Your task to perform on an android device: Clear all items from cart on amazon.com. Image 0: 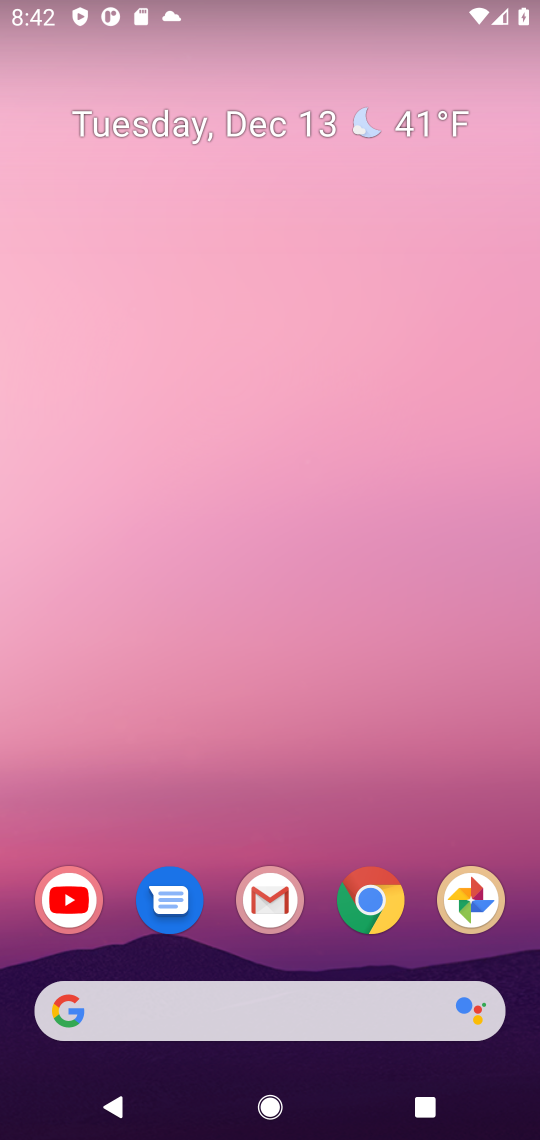
Step 0: click (376, 908)
Your task to perform on an android device: Clear all items from cart on amazon.com. Image 1: 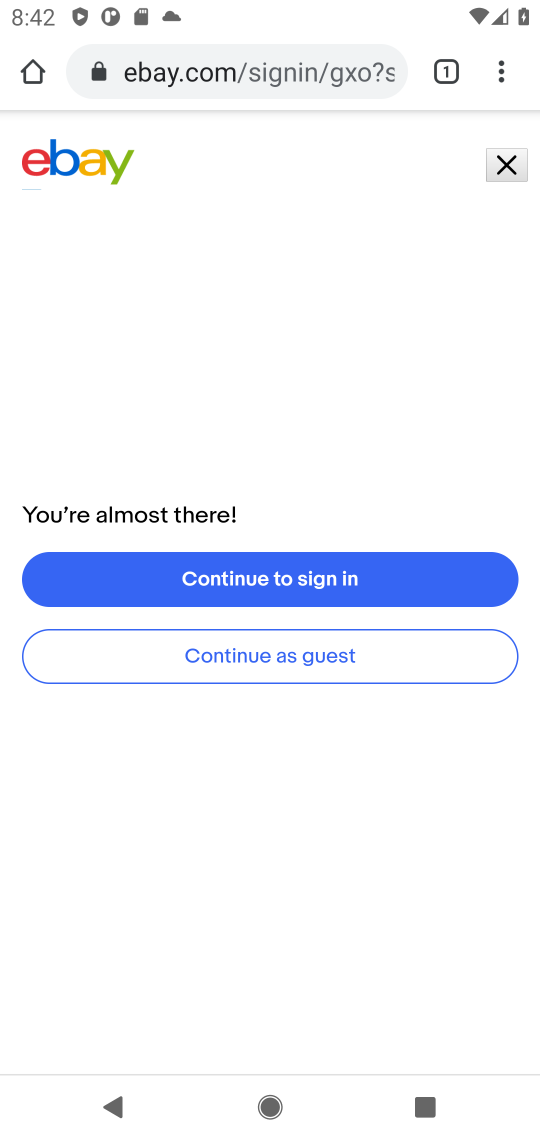
Step 1: click (237, 70)
Your task to perform on an android device: Clear all items from cart on amazon.com. Image 2: 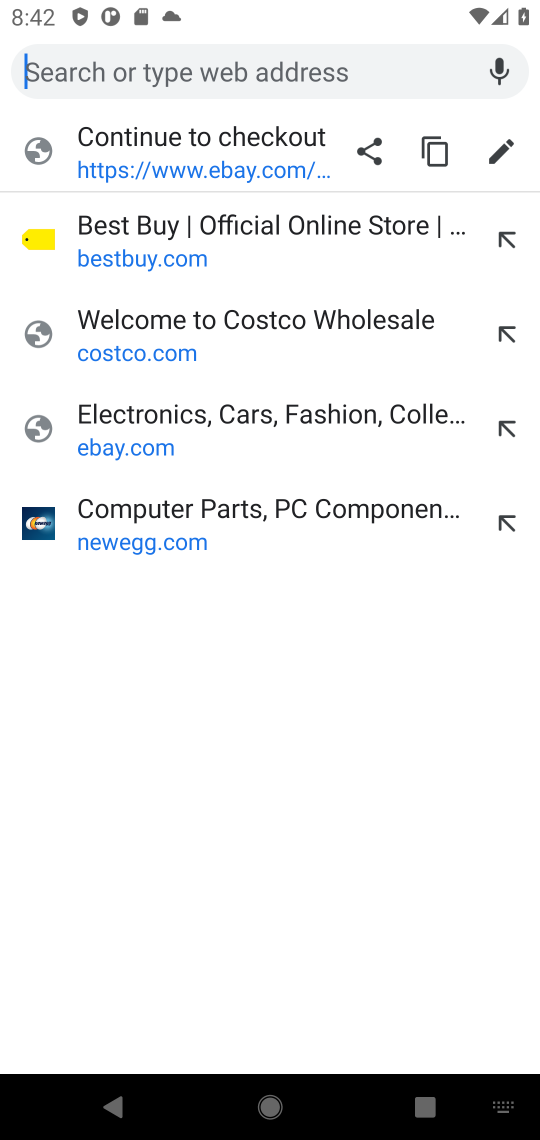
Step 2: type "amazon"
Your task to perform on an android device: Clear all items from cart on amazon.com. Image 3: 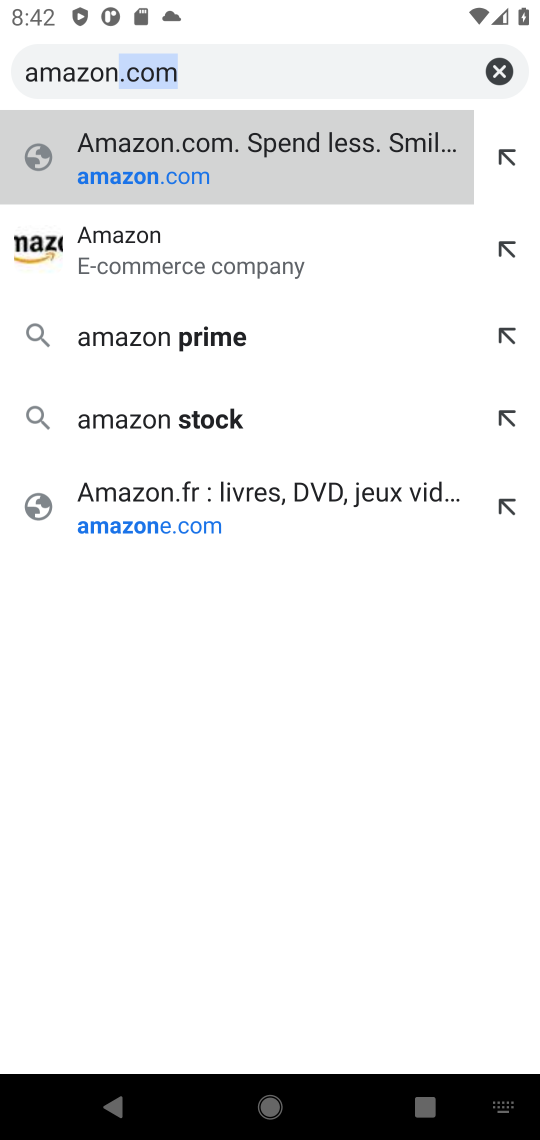
Step 3: click (173, 167)
Your task to perform on an android device: Clear all items from cart on amazon.com. Image 4: 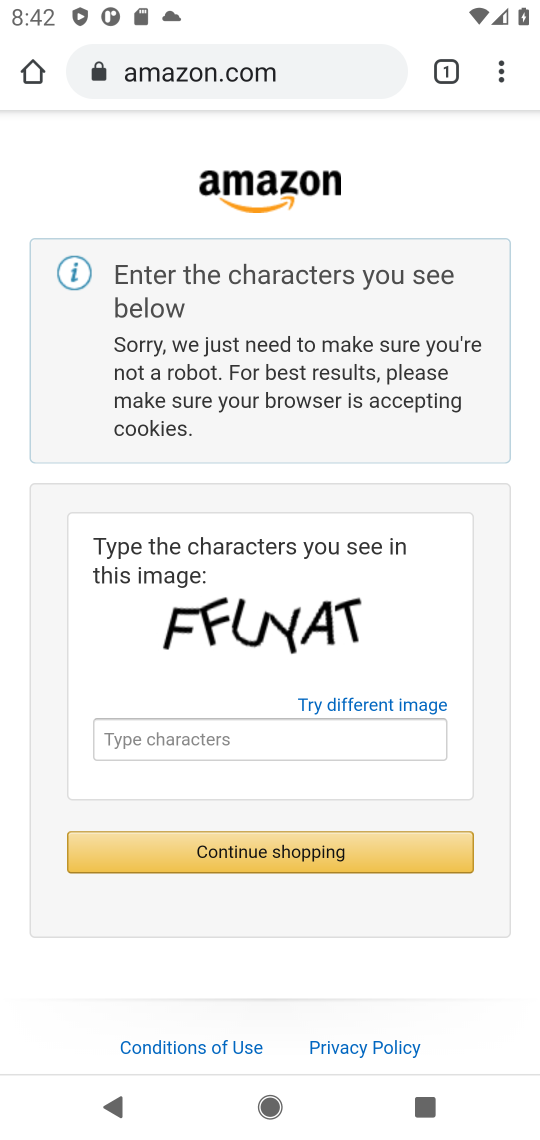
Step 4: click (284, 739)
Your task to perform on an android device: Clear all items from cart on amazon.com. Image 5: 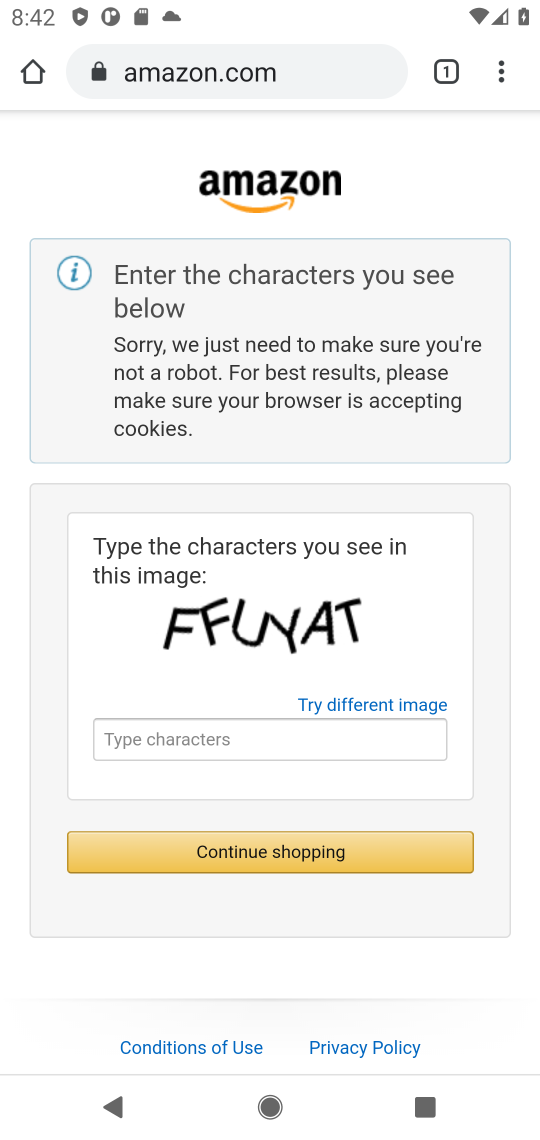
Step 5: click (284, 739)
Your task to perform on an android device: Clear all items from cart on amazon.com. Image 6: 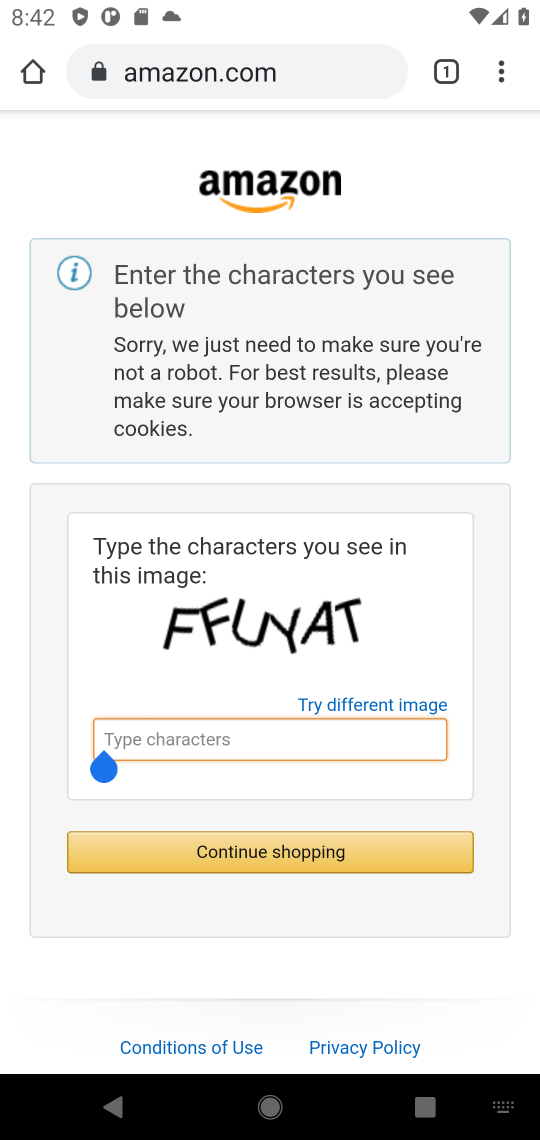
Step 6: type "FFUYAT"
Your task to perform on an android device: Clear all items from cart on amazon.com. Image 7: 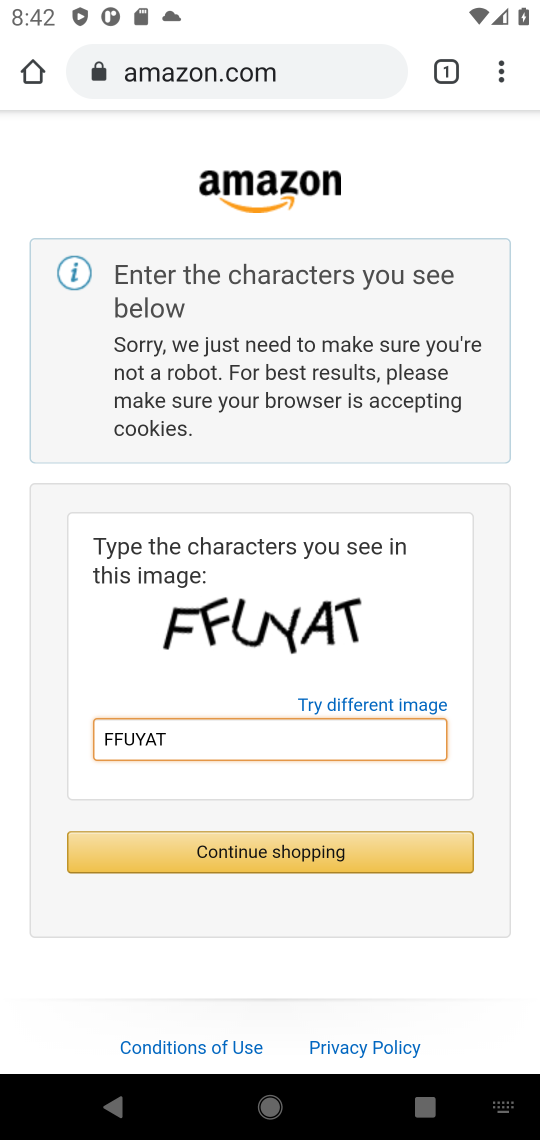
Step 7: click (317, 862)
Your task to perform on an android device: Clear all items from cart on amazon.com. Image 8: 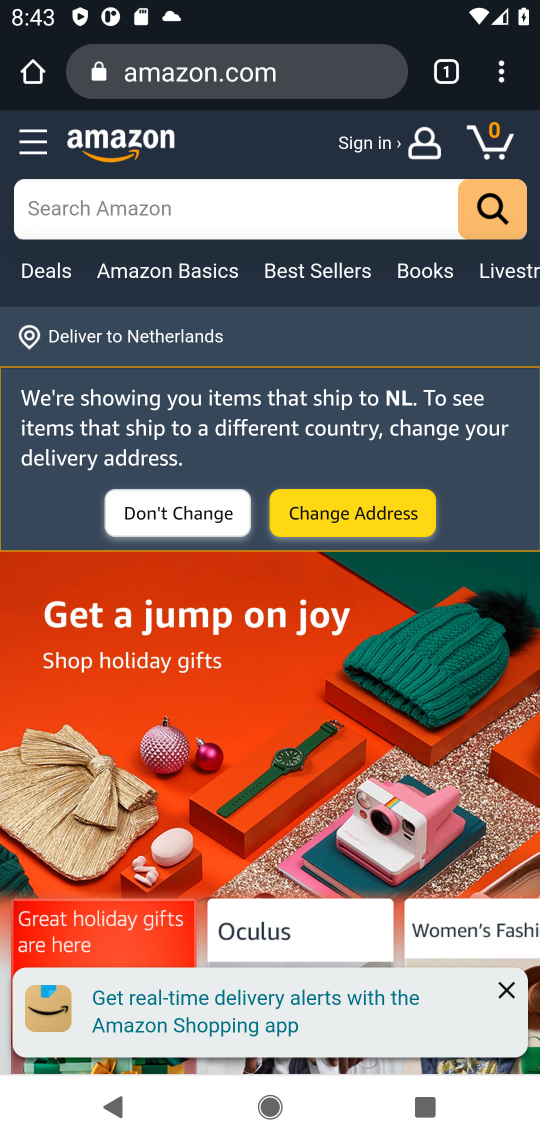
Step 8: click (495, 141)
Your task to perform on an android device: Clear all items from cart on amazon.com. Image 9: 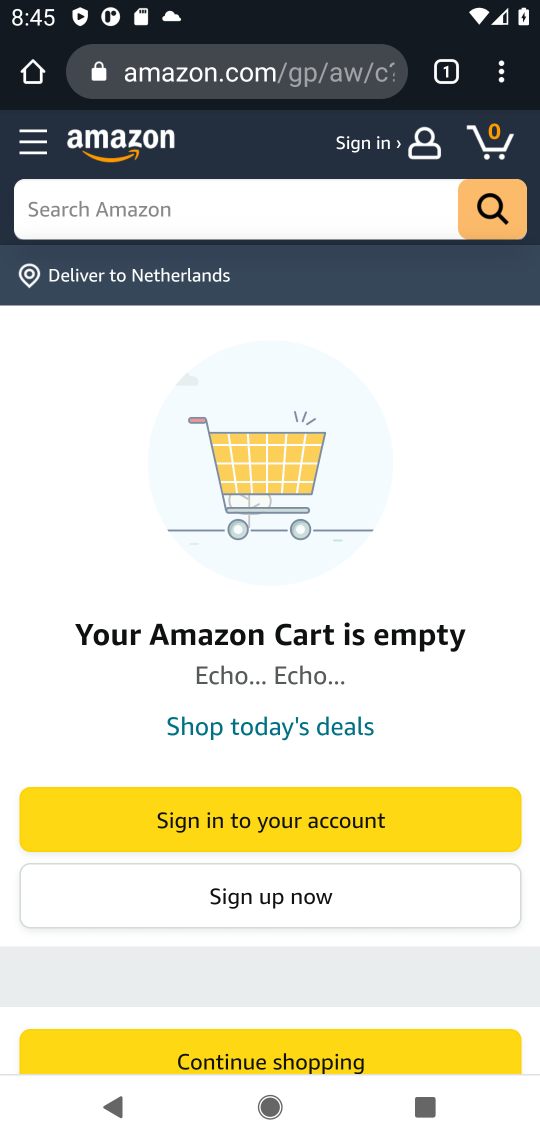
Step 9: task complete